Your task to perform on an android device: create a new album in the google photos Image 0: 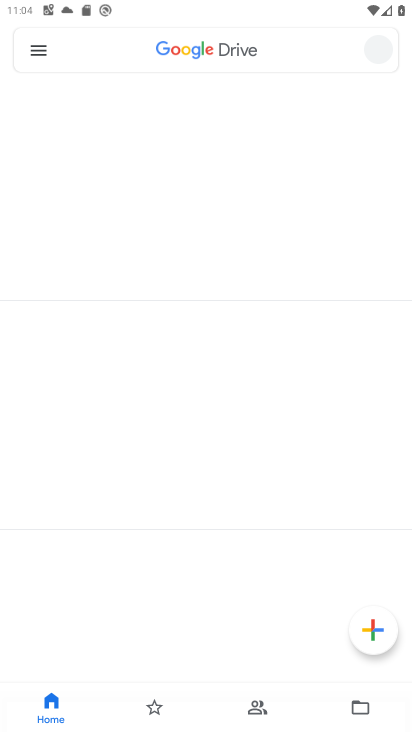
Step 0: click (58, 403)
Your task to perform on an android device: create a new album in the google photos Image 1: 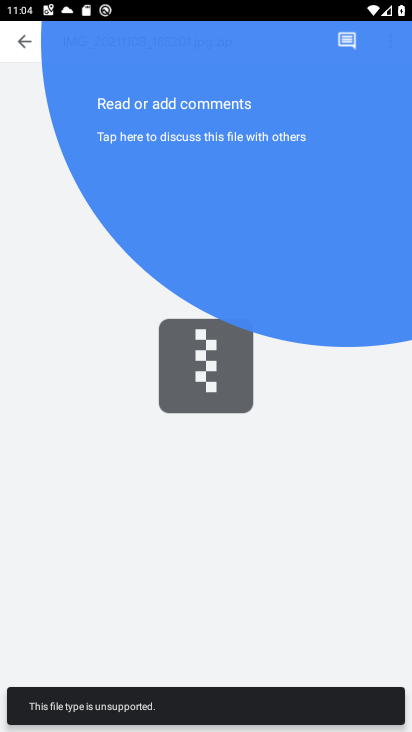
Step 1: click (13, 40)
Your task to perform on an android device: create a new album in the google photos Image 2: 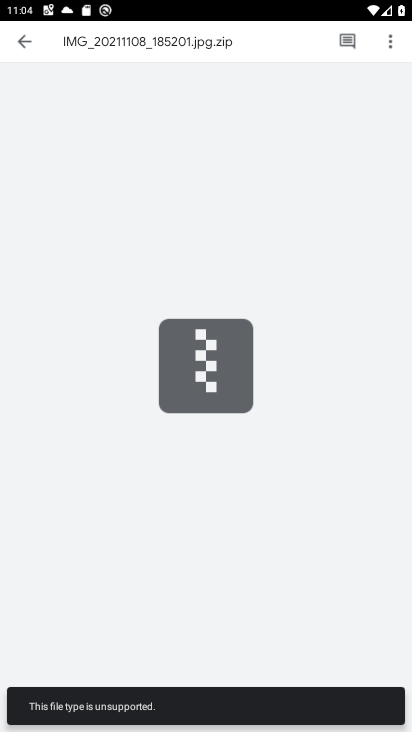
Step 2: click (24, 44)
Your task to perform on an android device: create a new album in the google photos Image 3: 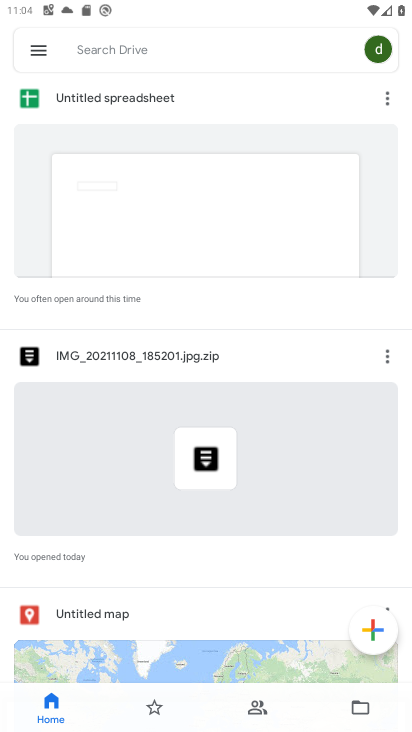
Step 3: press home button
Your task to perform on an android device: create a new album in the google photos Image 4: 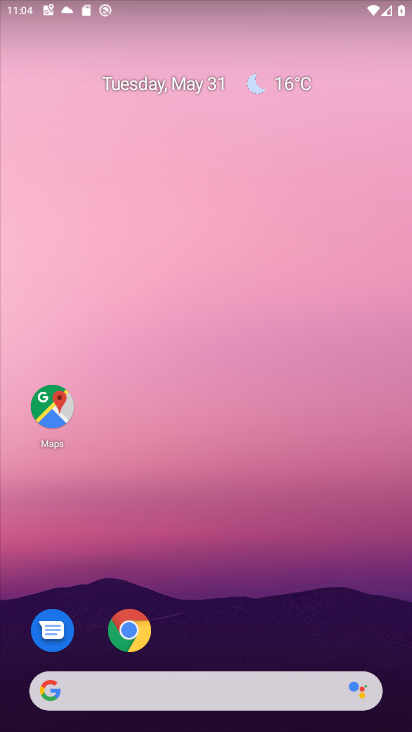
Step 4: drag from (224, 565) to (261, 185)
Your task to perform on an android device: create a new album in the google photos Image 5: 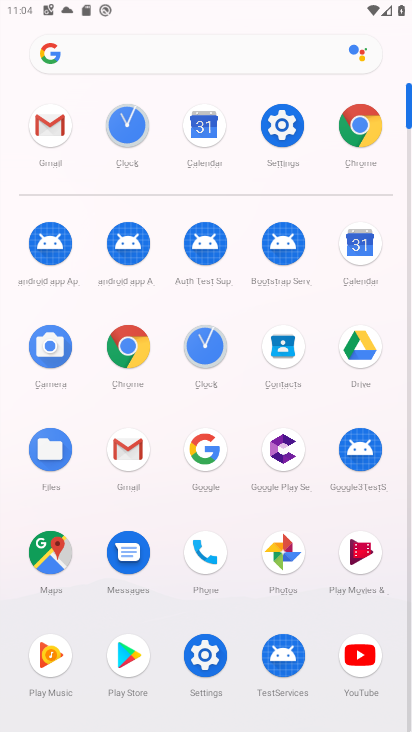
Step 5: click (271, 544)
Your task to perform on an android device: create a new album in the google photos Image 6: 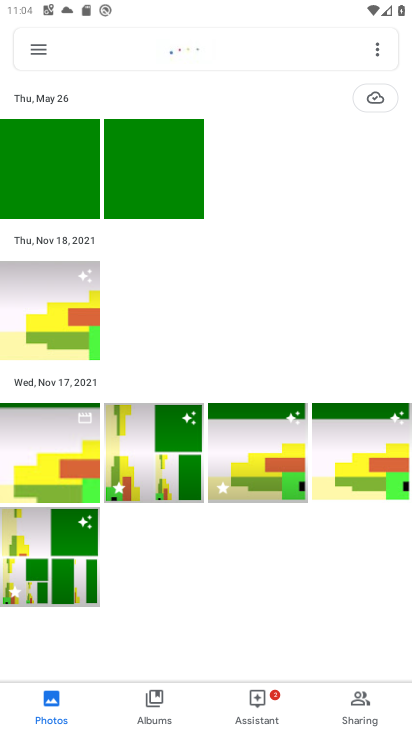
Step 6: click (145, 695)
Your task to perform on an android device: create a new album in the google photos Image 7: 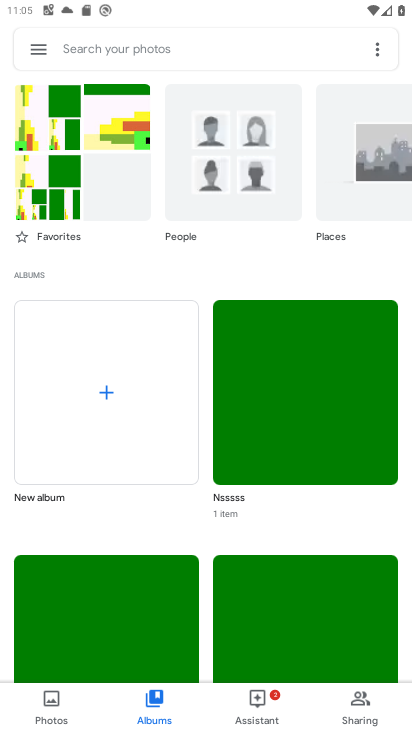
Step 7: click (167, 385)
Your task to perform on an android device: create a new album in the google photos Image 8: 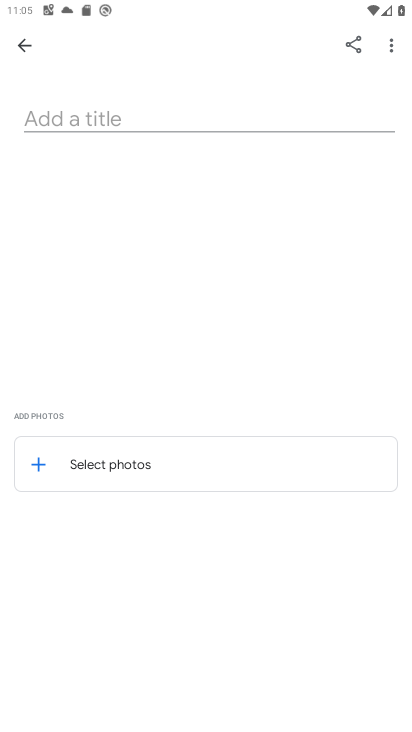
Step 8: click (169, 126)
Your task to perform on an android device: create a new album in the google photos Image 9: 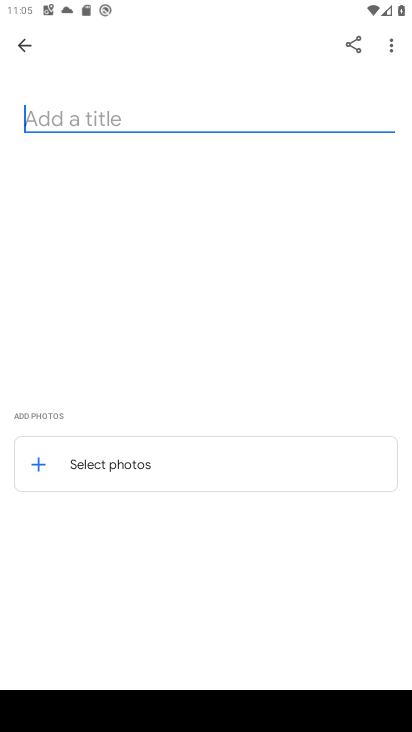
Step 9: type "prantu"
Your task to perform on an android device: create a new album in the google photos Image 10: 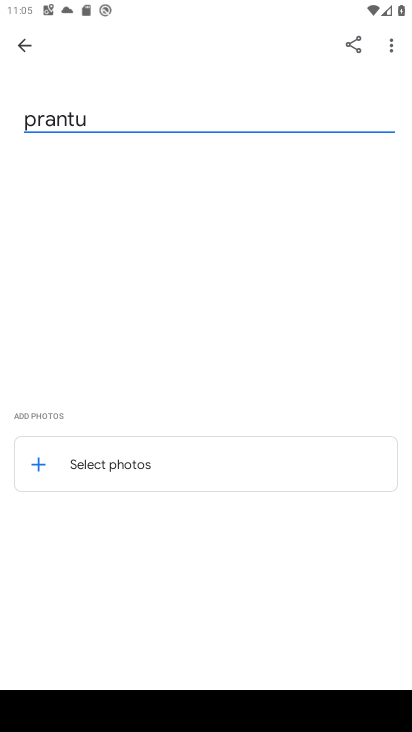
Step 10: press enter
Your task to perform on an android device: create a new album in the google photos Image 11: 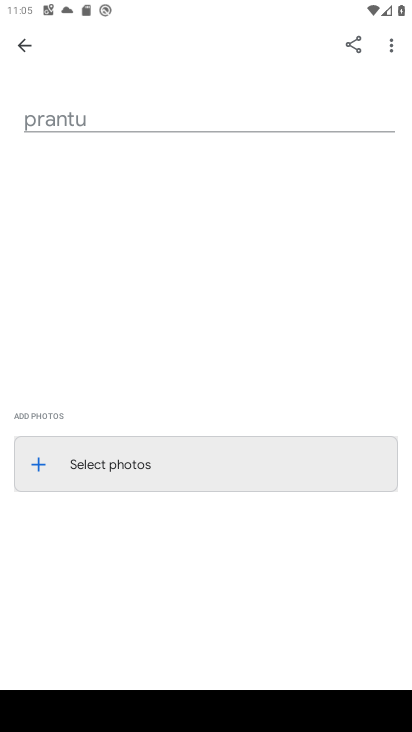
Step 11: press enter
Your task to perform on an android device: create a new album in the google photos Image 12: 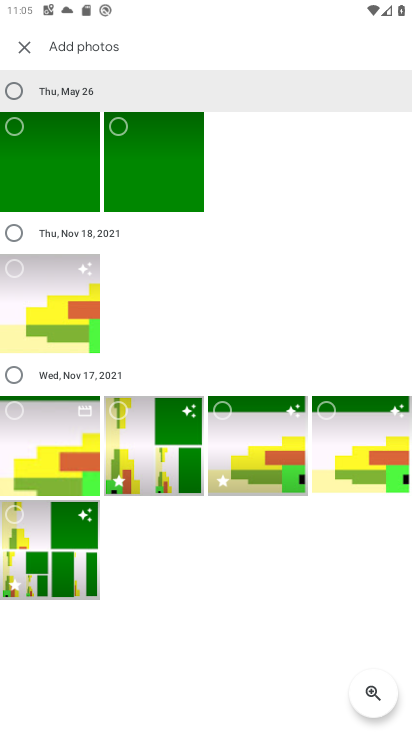
Step 12: click (19, 275)
Your task to perform on an android device: create a new album in the google photos Image 13: 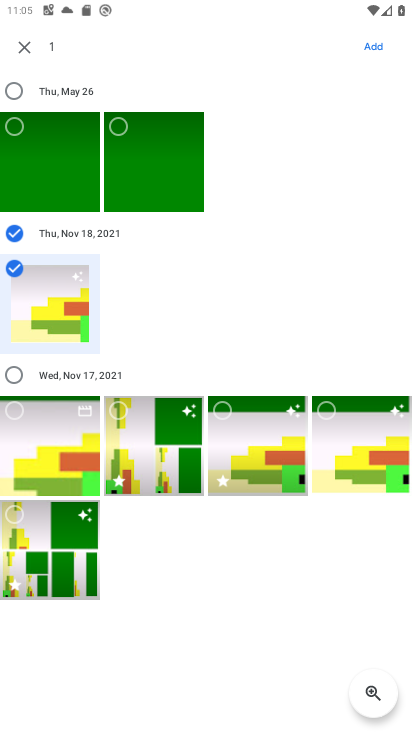
Step 13: press enter
Your task to perform on an android device: create a new album in the google photos Image 14: 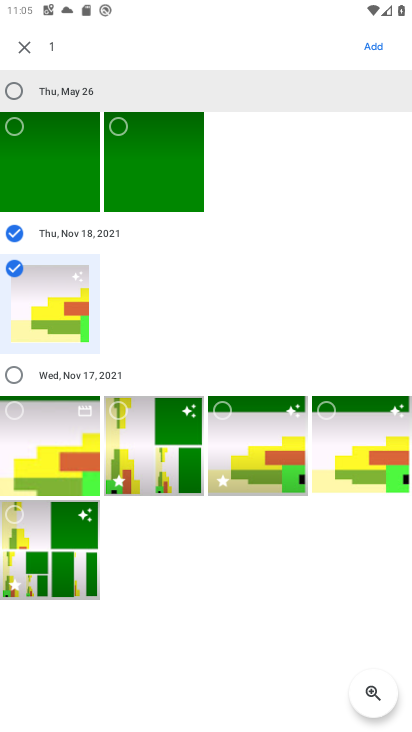
Step 14: press enter
Your task to perform on an android device: create a new album in the google photos Image 15: 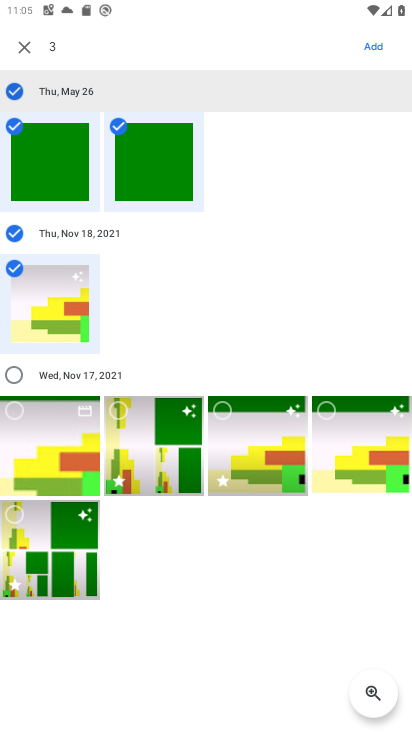
Step 15: click (17, 116)
Your task to perform on an android device: create a new album in the google photos Image 16: 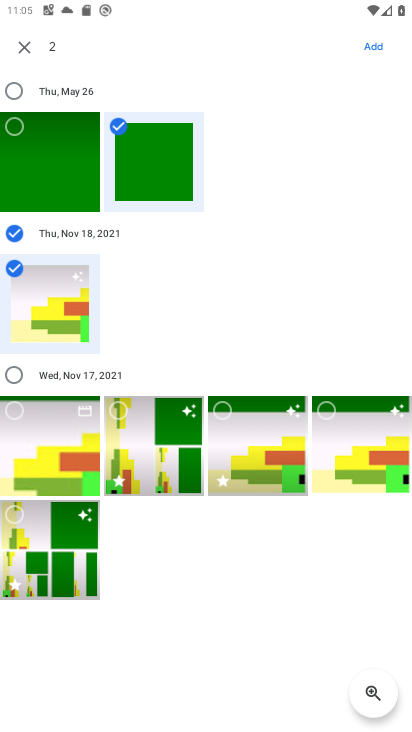
Step 16: click (126, 120)
Your task to perform on an android device: create a new album in the google photos Image 17: 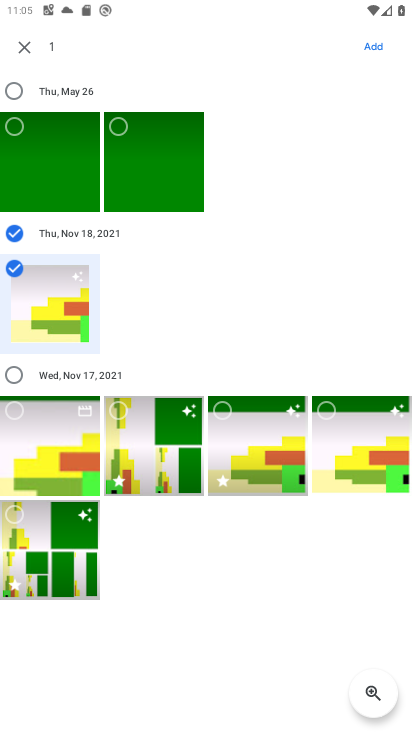
Step 17: click (378, 54)
Your task to perform on an android device: create a new album in the google photos Image 18: 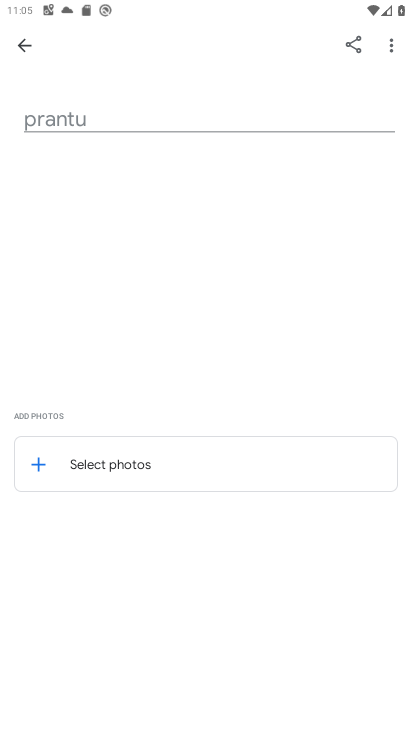
Step 18: click (380, 41)
Your task to perform on an android device: create a new album in the google photos Image 19: 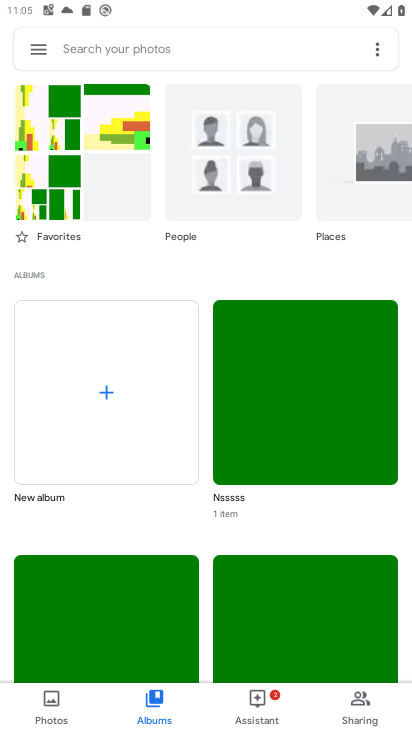
Step 19: task complete